Your task to perform on an android device: turn pop-ups on in chrome Image 0: 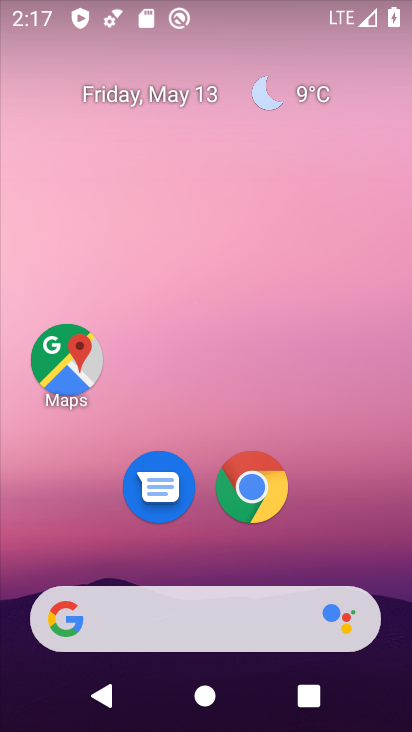
Step 0: click (254, 488)
Your task to perform on an android device: turn pop-ups on in chrome Image 1: 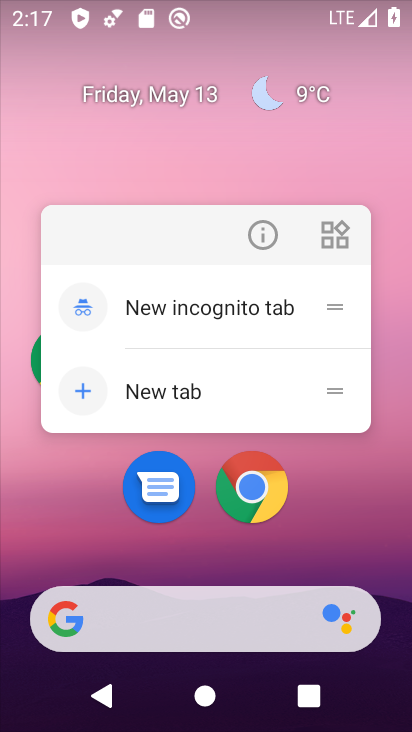
Step 1: click (254, 488)
Your task to perform on an android device: turn pop-ups on in chrome Image 2: 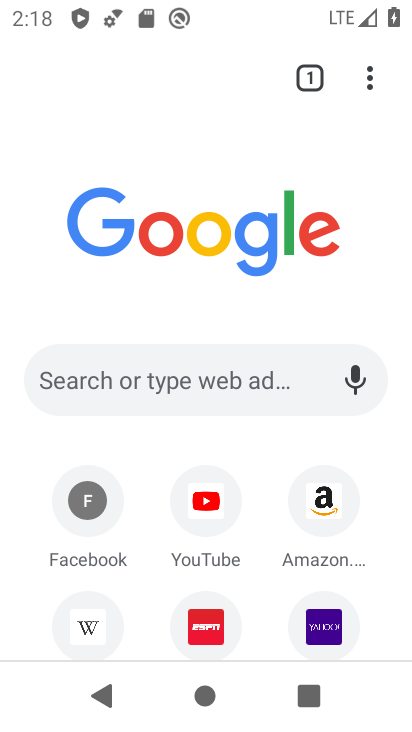
Step 2: click (360, 78)
Your task to perform on an android device: turn pop-ups on in chrome Image 3: 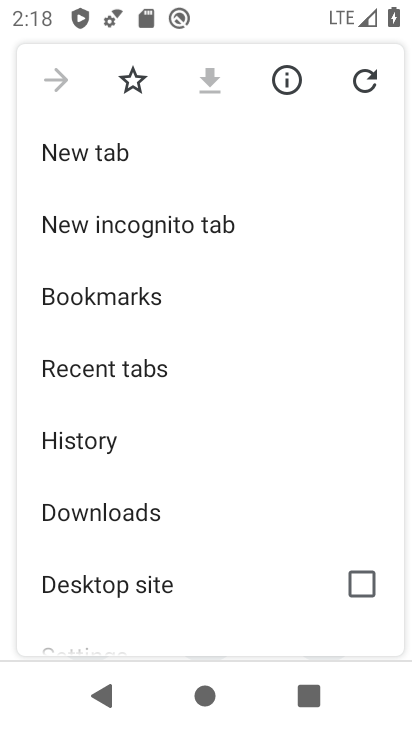
Step 3: drag from (224, 562) to (260, 205)
Your task to perform on an android device: turn pop-ups on in chrome Image 4: 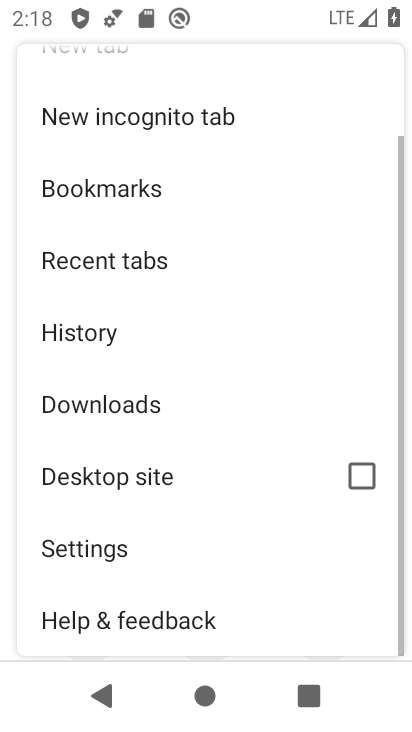
Step 4: click (106, 575)
Your task to perform on an android device: turn pop-ups on in chrome Image 5: 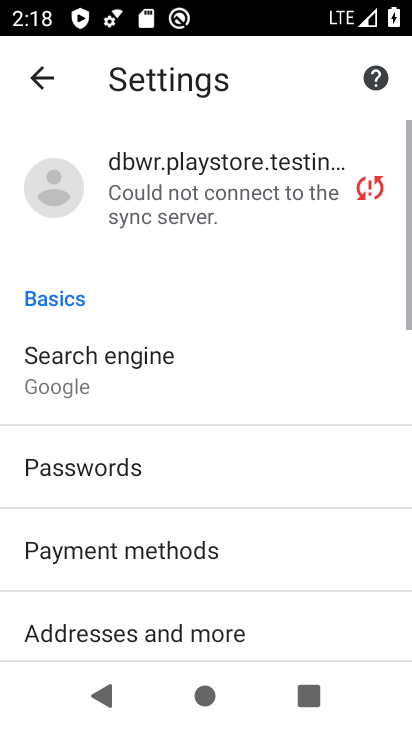
Step 5: drag from (257, 568) to (249, 227)
Your task to perform on an android device: turn pop-ups on in chrome Image 6: 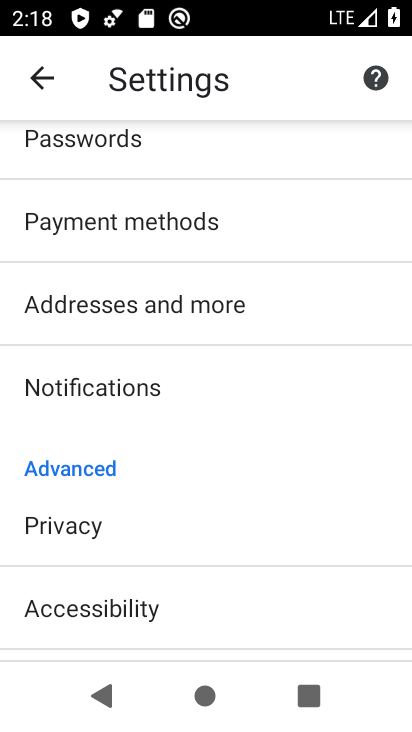
Step 6: drag from (111, 589) to (104, 246)
Your task to perform on an android device: turn pop-ups on in chrome Image 7: 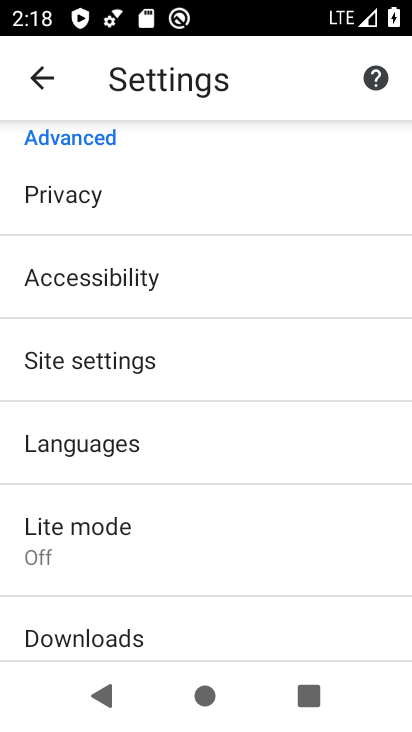
Step 7: click (124, 349)
Your task to perform on an android device: turn pop-ups on in chrome Image 8: 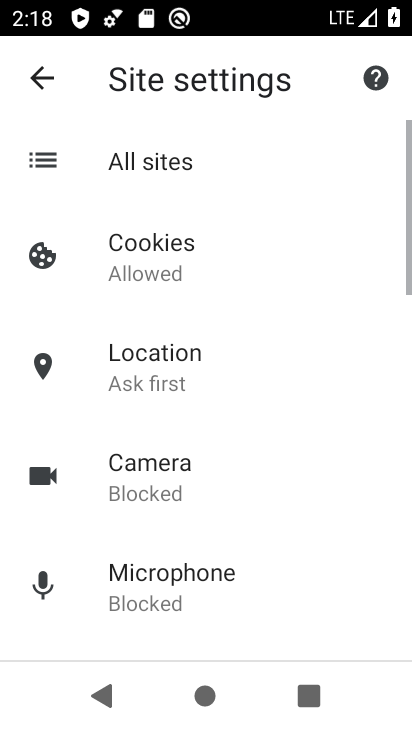
Step 8: drag from (311, 592) to (285, 136)
Your task to perform on an android device: turn pop-ups on in chrome Image 9: 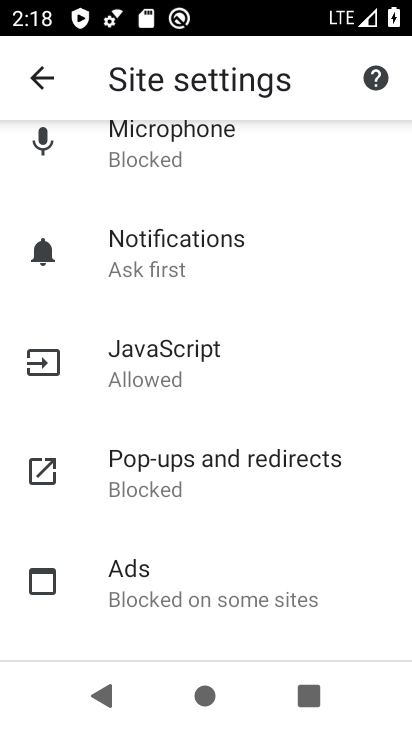
Step 9: click (181, 465)
Your task to perform on an android device: turn pop-ups on in chrome Image 10: 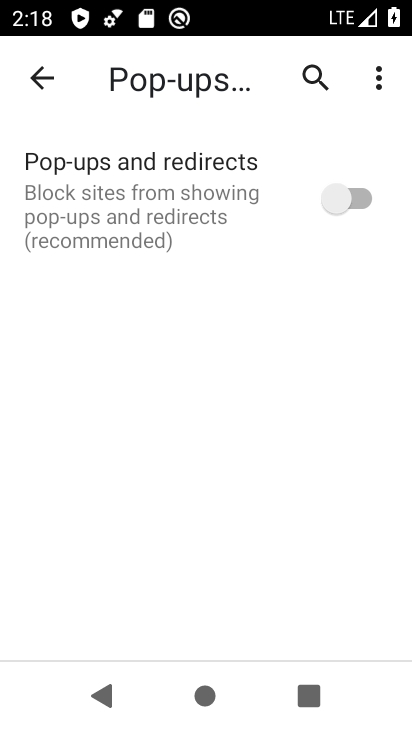
Step 10: click (341, 202)
Your task to perform on an android device: turn pop-ups on in chrome Image 11: 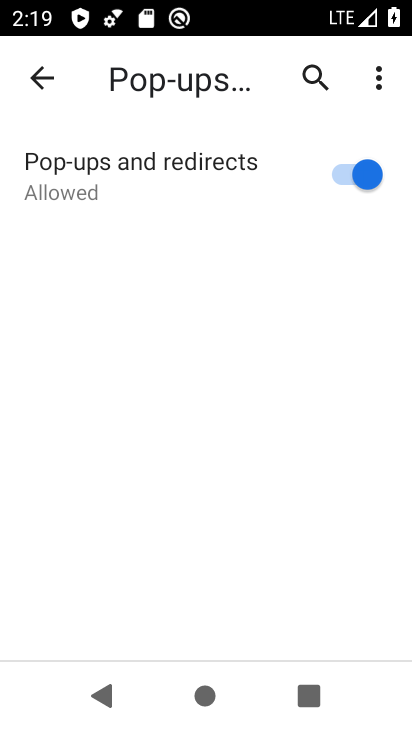
Step 11: task complete